Your task to perform on an android device: Do I have any events today? Image 0: 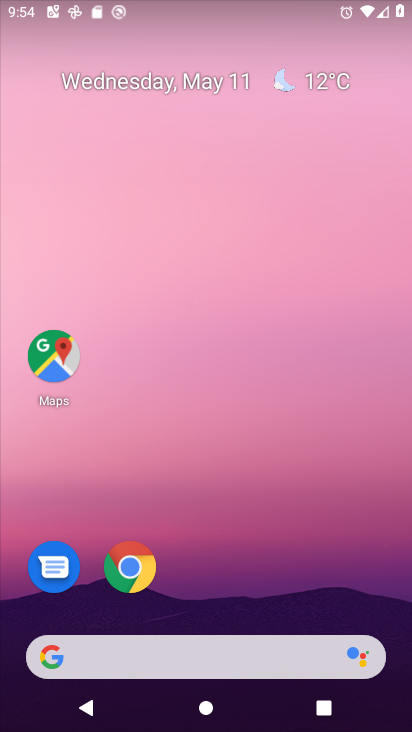
Step 0: drag from (244, 453) to (187, 46)
Your task to perform on an android device: Do I have any events today? Image 1: 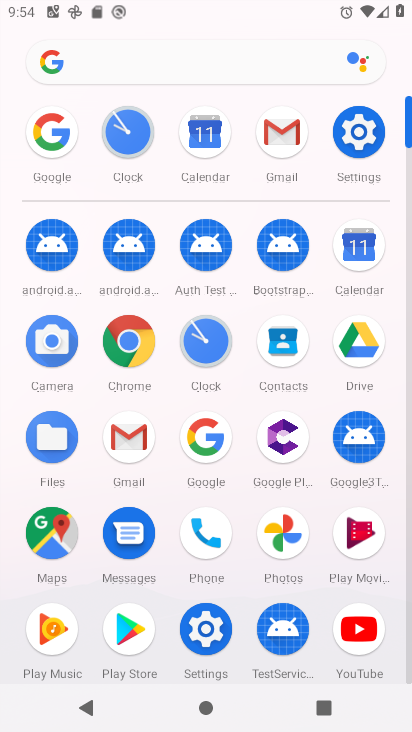
Step 1: click (204, 435)
Your task to perform on an android device: Do I have any events today? Image 2: 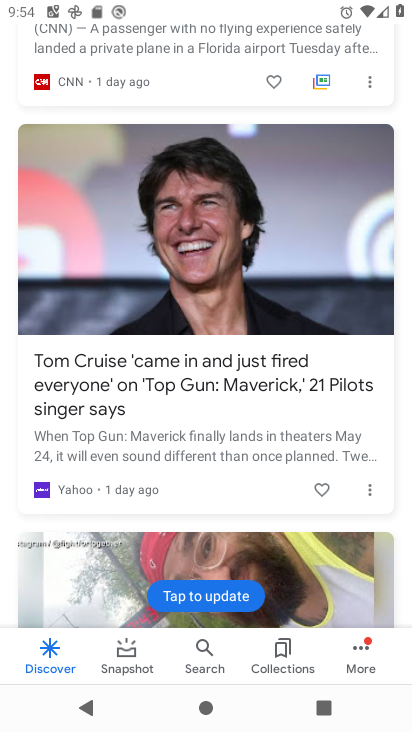
Step 2: press home button
Your task to perform on an android device: Do I have any events today? Image 3: 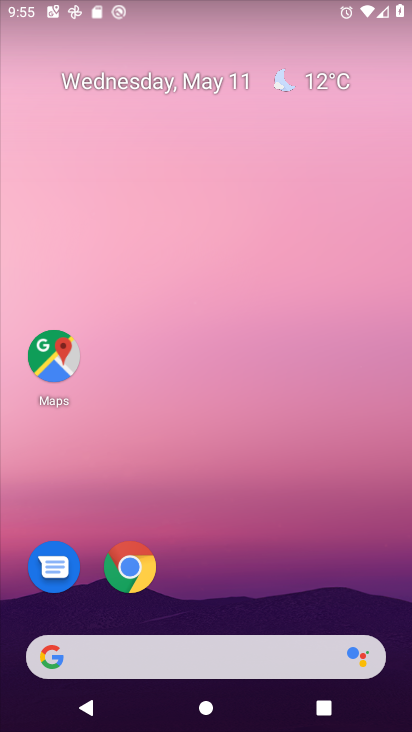
Step 3: drag from (236, 372) to (192, 25)
Your task to perform on an android device: Do I have any events today? Image 4: 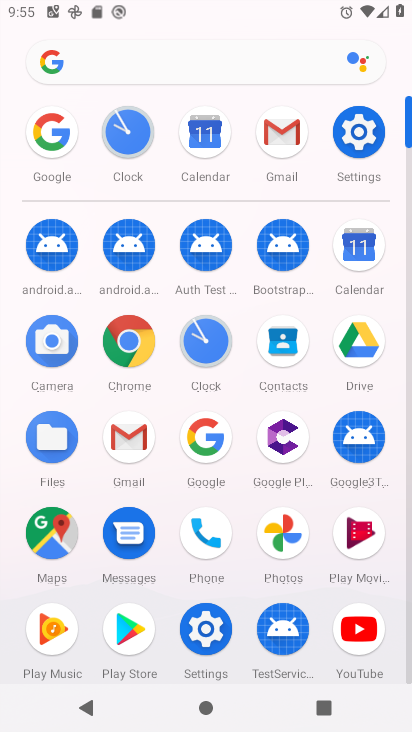
Step 4: click (207, 135)
Your task to perform on an android device: Do I have any events today? Image 5: 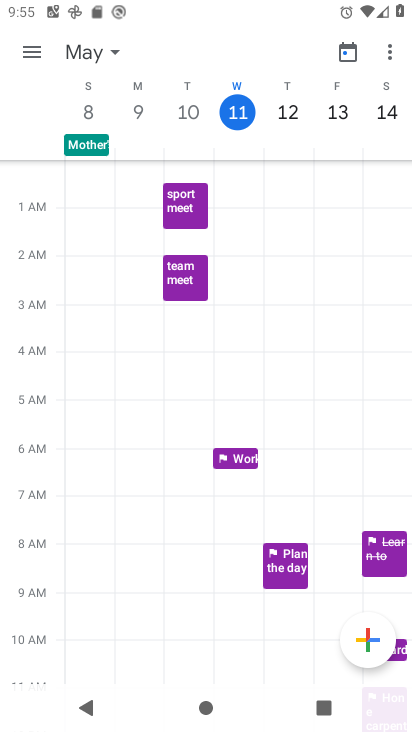
Step 5: task complete